Your task to perform on an android device: Go to Google maps Image 0: 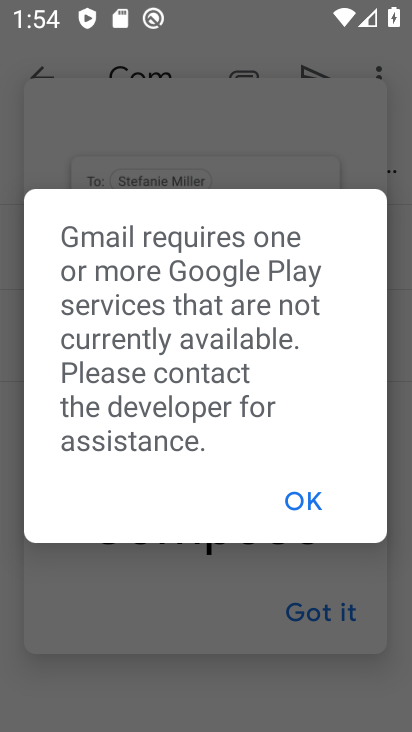
Step 0: press home button
Your task to perform on an android device: Go to Google maps Image 1: 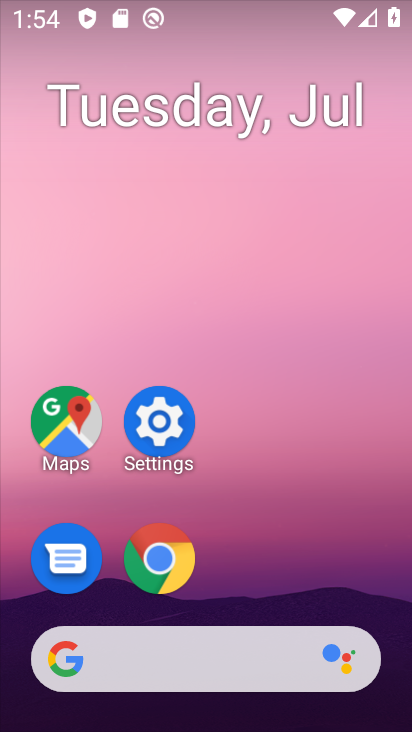
Step 1: click (58, 409)
Your task to perform on an android device: Go to Google maps Image 2: 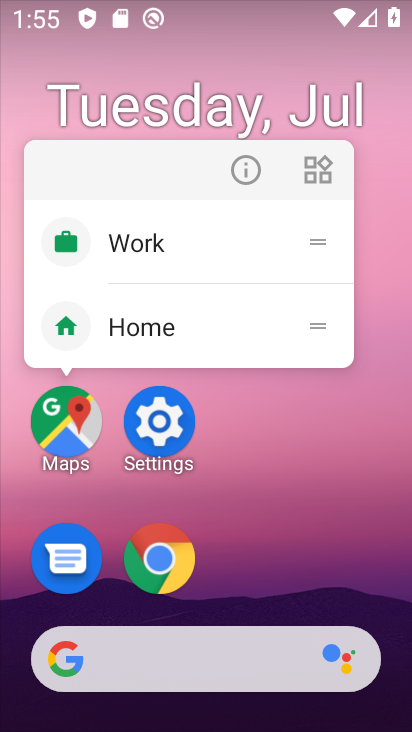
Step 2: click (68, 418)
Your task to perform on an android device: Go to Google maps Image 3: 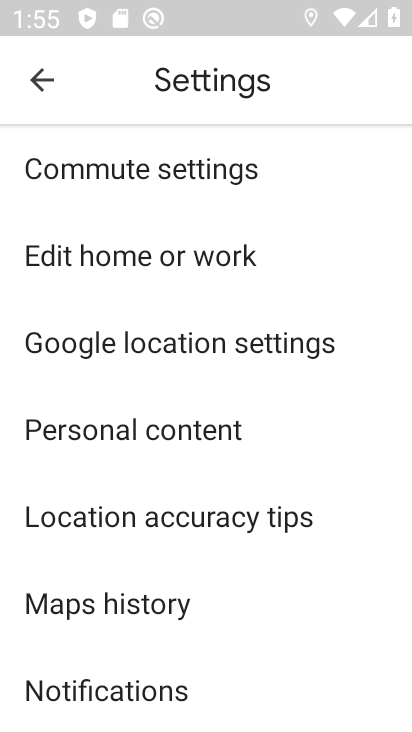
Step 3: task complete